Your task to perform on an android device: Go to Google maps Image 0: 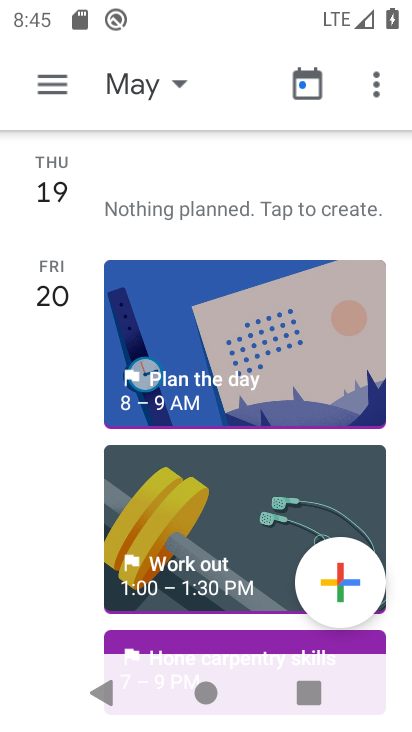
Step 0: press home button
Your task to perform on an android device: Go to Google maps Image 1: 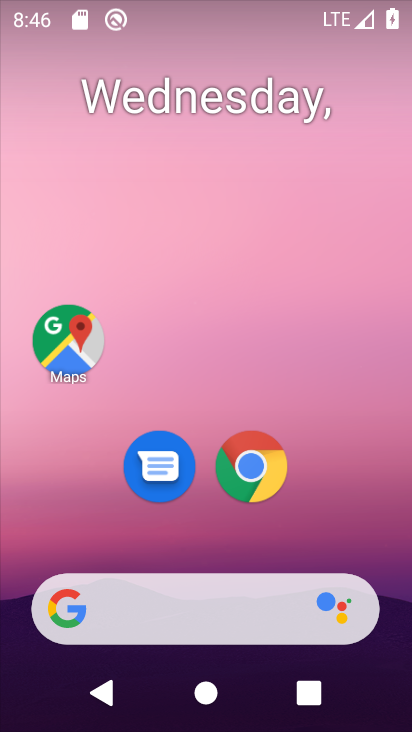
Step 1: drag from (222, 725) to (216, 212)
Your task to perform on an android device: Go to Google maps Image 2: 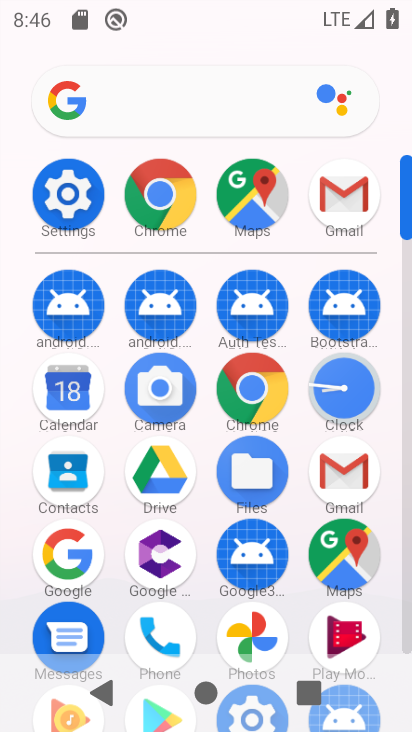
Step 2: click (344, 554)
Your task to perform on an android device: Go to Google maps Image 3: 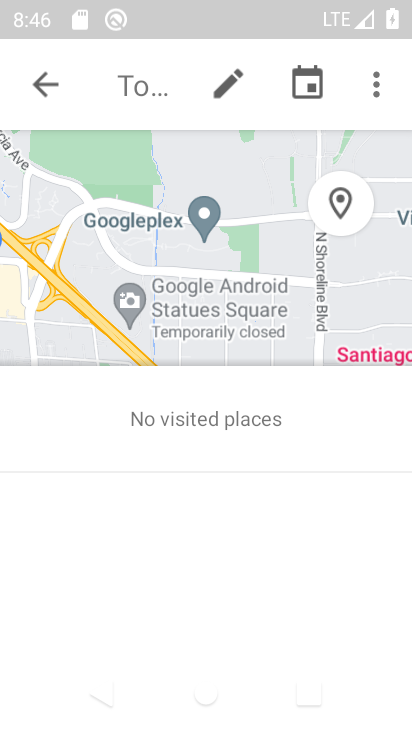
Step 3: task complete